Your task to perform on an android device: change text size in settings app Image 0: 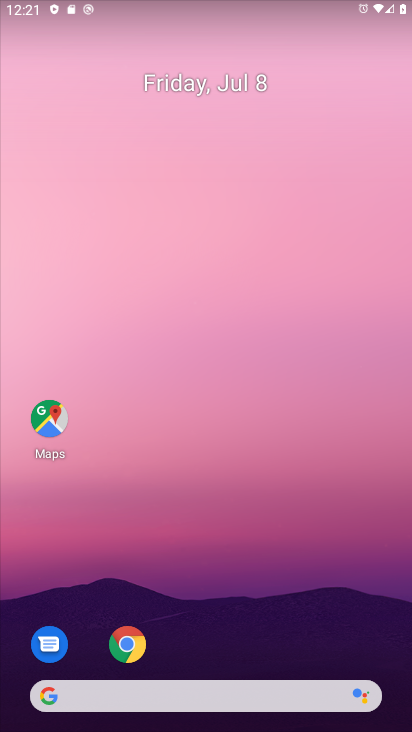
Step 0: click (121, 398)
Your task to perform on an android device: change text size in settings app Image 1: 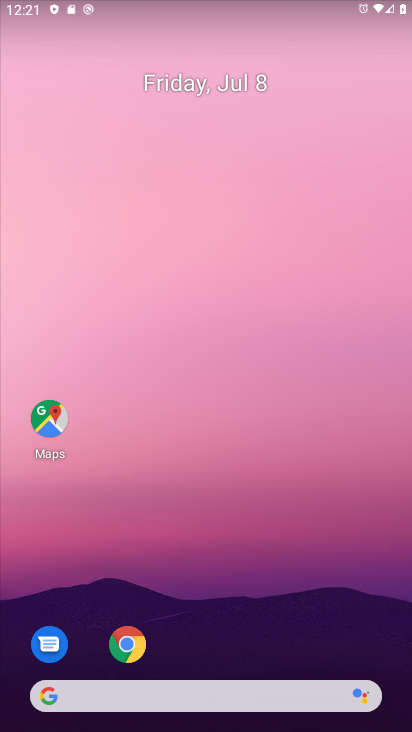
Step 1: drag from (200, 694) to (248, 208)
Your task to perform on an android device: change text size in settings app Image 2: 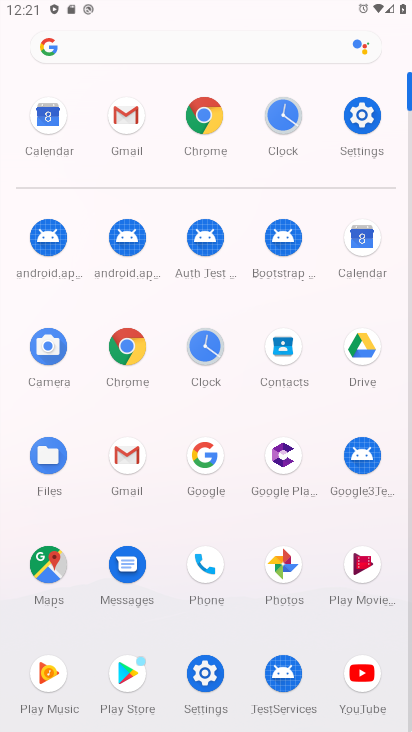
Step 2: click (367, 134)
Your task to perform on an android device: change text size in settings app Image 3: 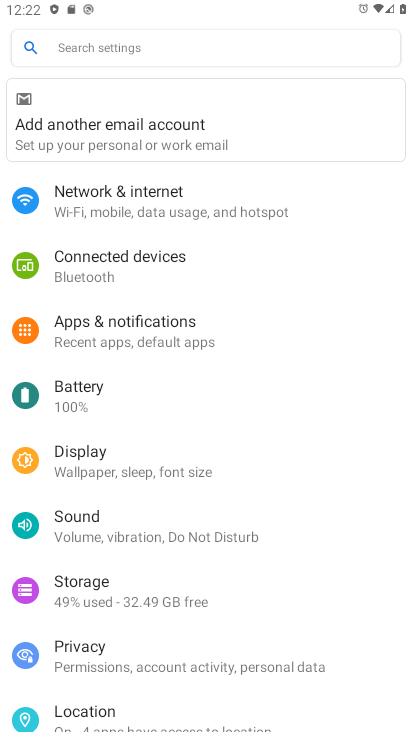
Step 3: click (114, 475)
Your task to perform on an android device: change text size in settings app Image 4: 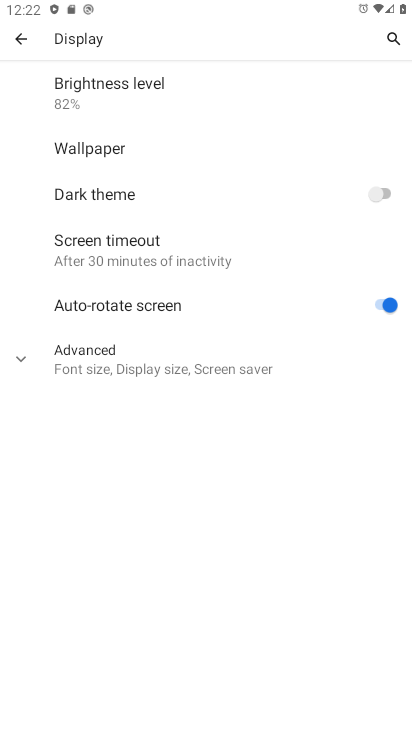
Step 4: click (127, 361)
Your task to perform on an android device: change text size in settings app Image 5: 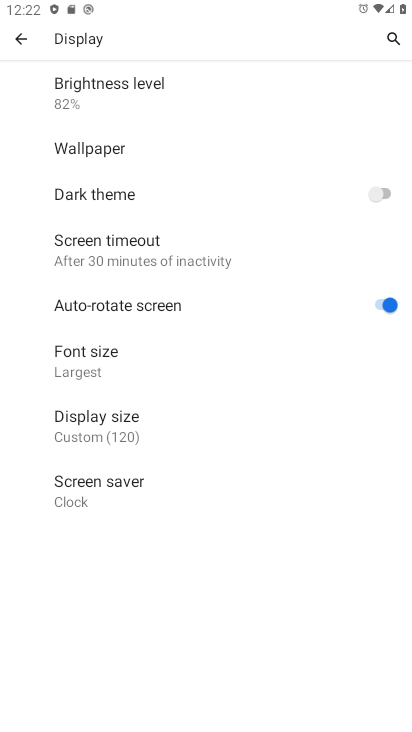
Step 5: click (116, 370)
Your task to perform on an android device: change text size in settings app Image 6: 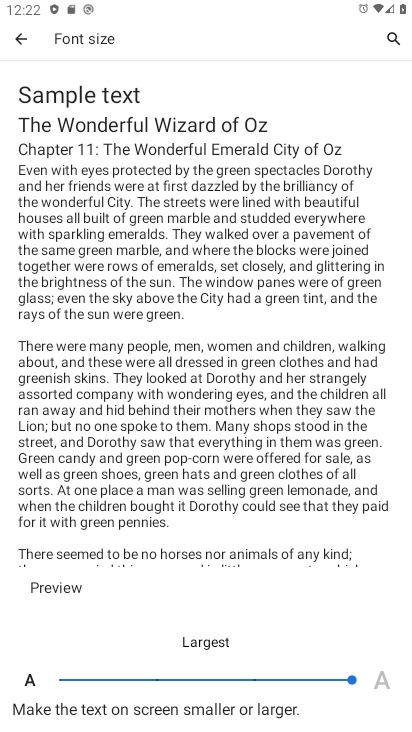
Step 6: task complete